Your task to perform on an android device: choose inbox layout in the gmail app Image 0: 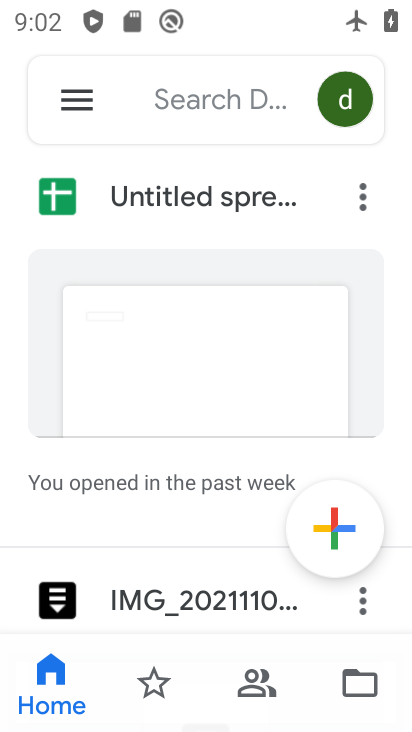
Step 0: press home button
Your task to perform on an android device: choose inbox layout in the gmail app Image 1: 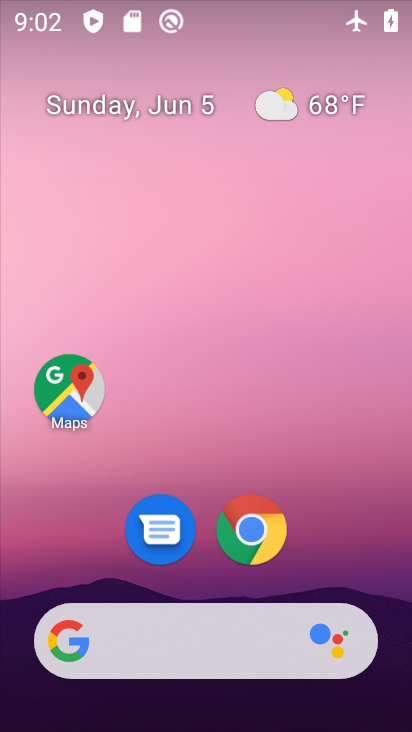
Step 1: drag from (182, 699) to (267, 61)
Your task to perform on an android device: choose inbox layout in the gmail app Image 2: 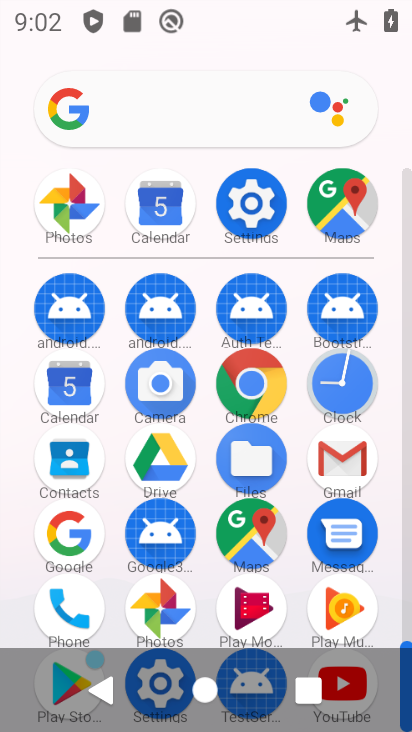
Step 2: click (349, 435)
Your task to perform on an android device: choose inbox layout in the gmail app Image 3: 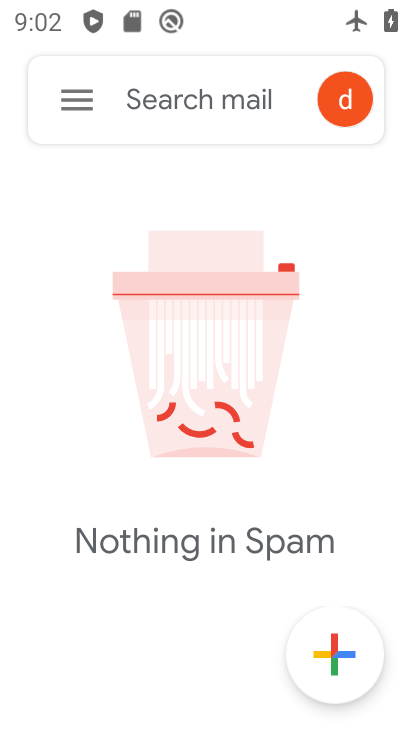
Step 3: click (69, 98)
Your task to perform on an android device: choose inbox layout in the gmail app Image 4: 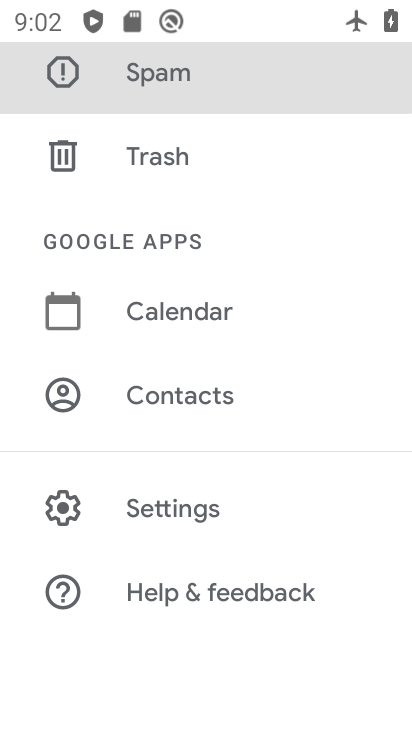
Step 4: click (208, 510)
Your task to perform on an android device: choose inbox layout in the gmail app Image 5: 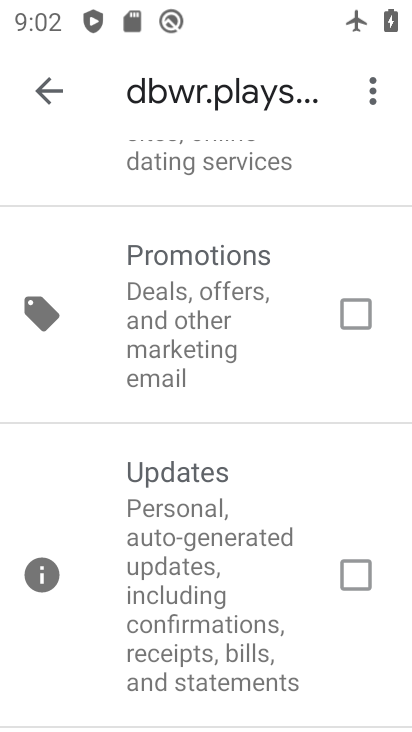
Step 5: drag from (304, 237) to (399, 656)
Your task to perform on an android device: choose inbox layout in the gmail app Image 6: 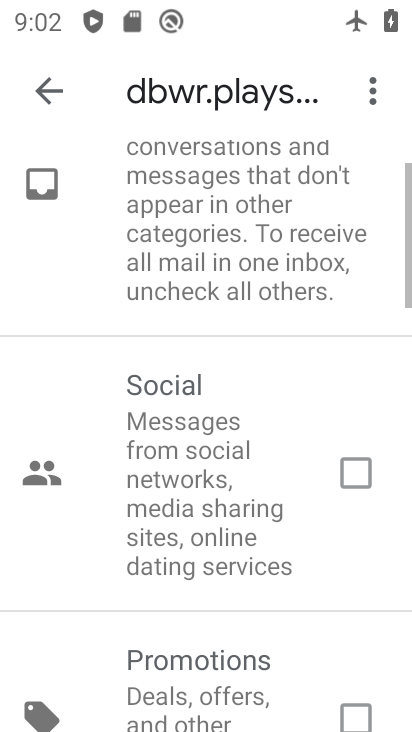
Step 6: click (73, 72)
Your task to perform on an android device: choose inbox layout in the gmail app Image 7: 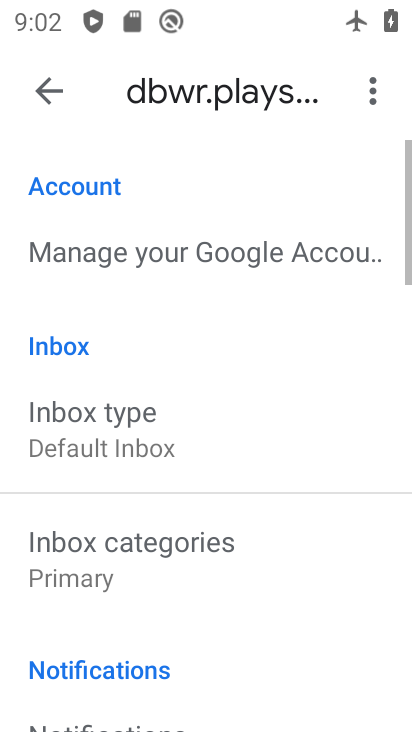
Step 7: click (132, 435)
Your task to perform on an android device: choose inbox layout in the gmail app Image 8: 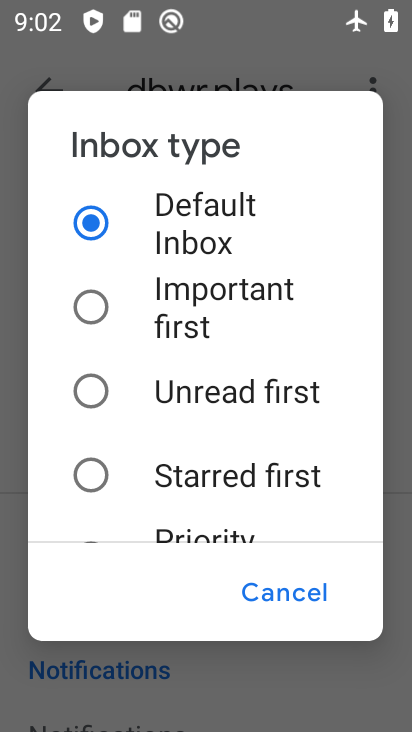
Step 8: click (183, 300)
Your task to perform on an android device: choose inbox layout in the gmail app Image 9: 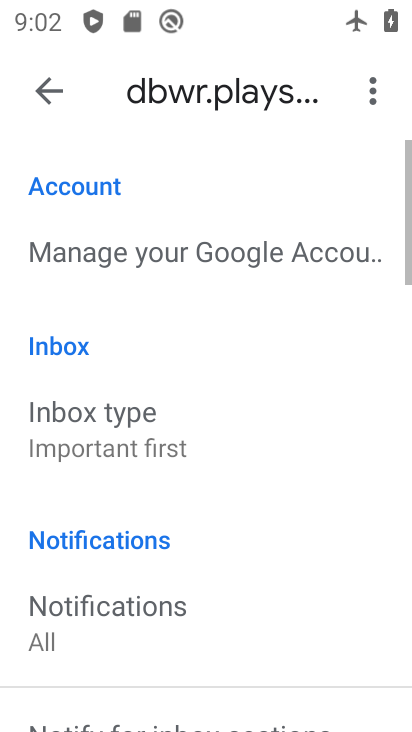
Step 9: task complete